Your task to perform on an android device: open a new tab in the chrome app Image 0: 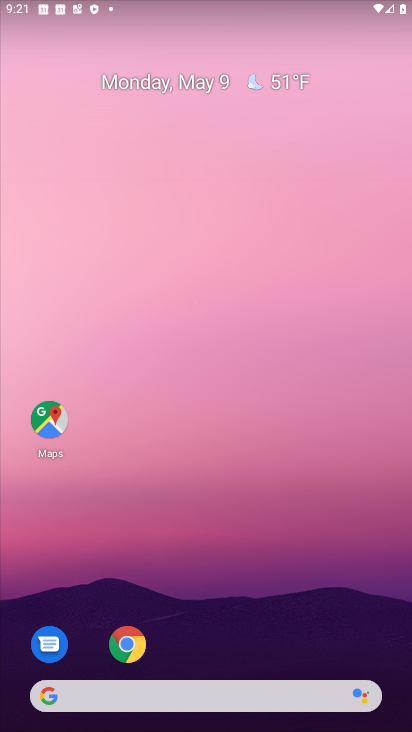
Step 0: drag from (232, 676) to (324, 47)
Your task to perform on an android device: open a new tab in the chrome app Image 1: 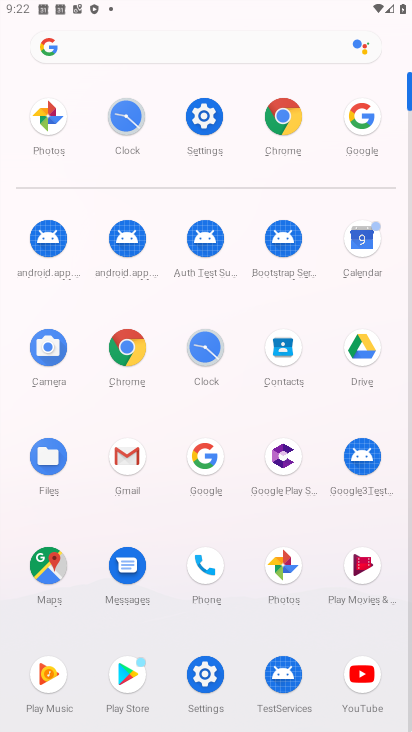
Step 1: click (133, 363)
Your task to perform on an android device: open a new tab in the chrome app Image 2: 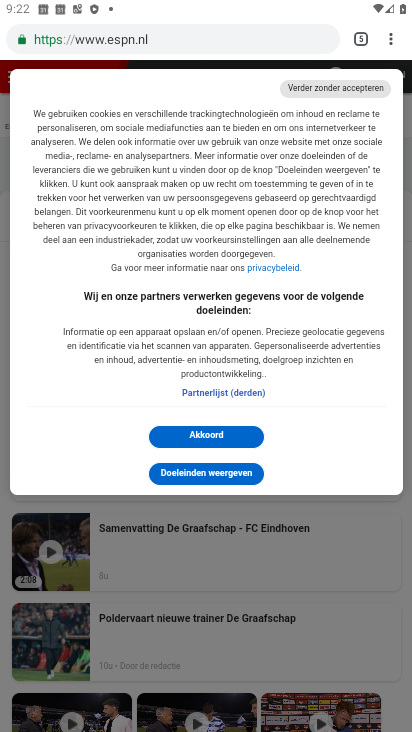
Step 2: click (224, 430)
Your task to perform on an android device: open a new tab in the chrome app Image 3: 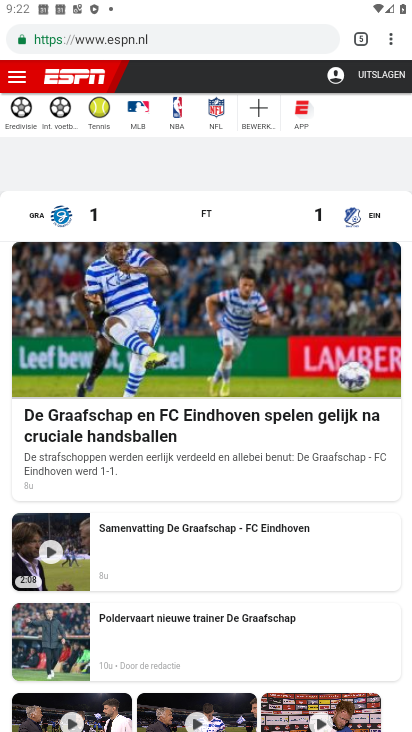
Step 3: click (361, 36)
Your task to perform on an android device: open a new tab in the chrome app Image 4: 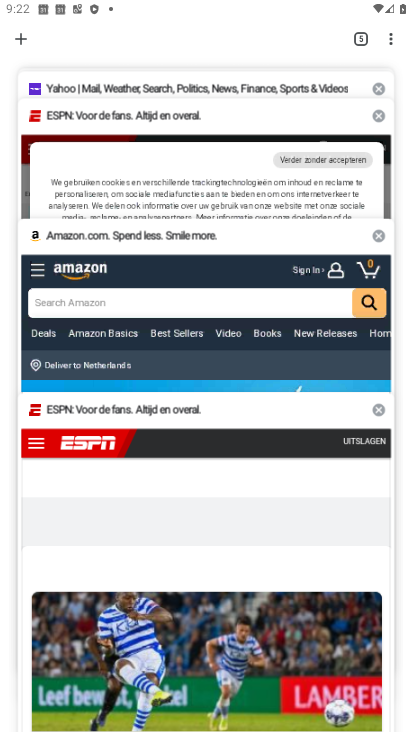
Step 4: click (17, 41)
Your task to perform on an android device: open a new tab in the chrome app Image 5: 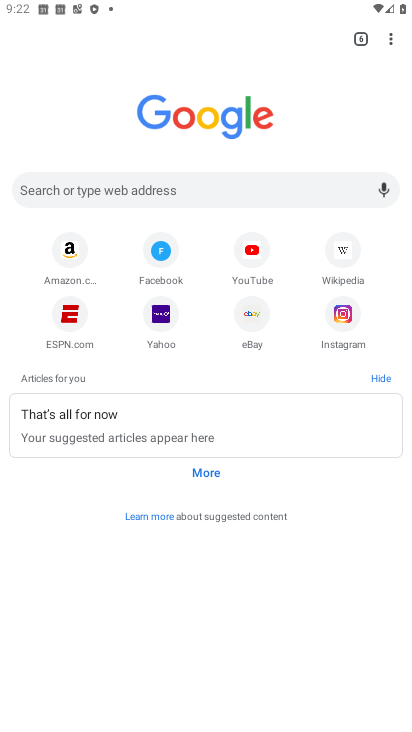
Step 5: task complete